Your task to perform on an android device: make emails show in primary in the gmail app Image 0: 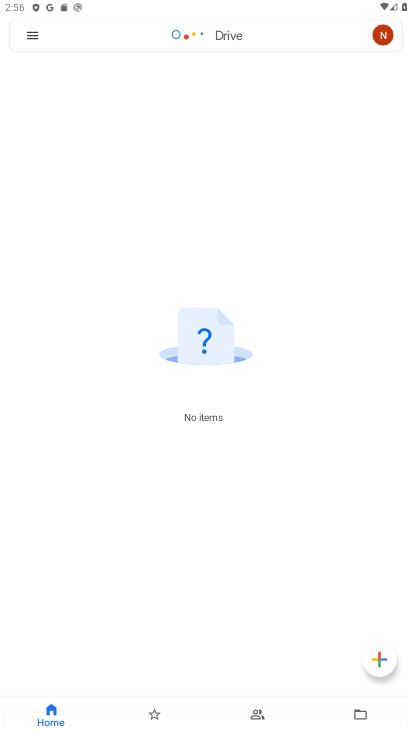
Step 0: press home button
Your task to perform on an android device: make emails show in primary in the gmail app Image 1: 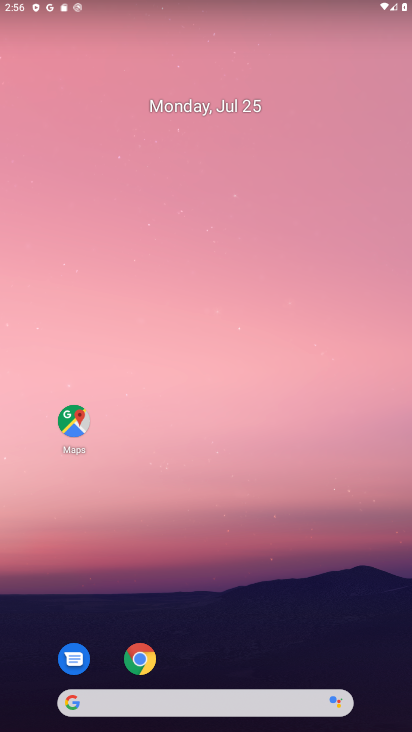
Step 1: drag from (235, 687) to (203, 23)
Your task to perform on an android device: make emails show in primary in the gmail app Image 2: 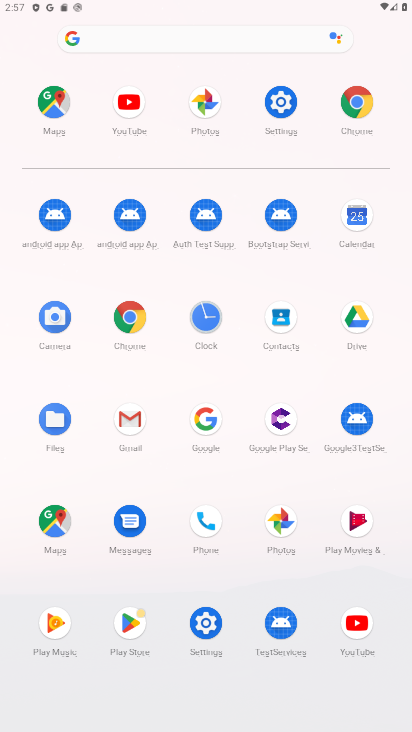
Step 2: click (130, 431)
Your task to perform on an android device: make emails show in primary in the gmail app Image 3: 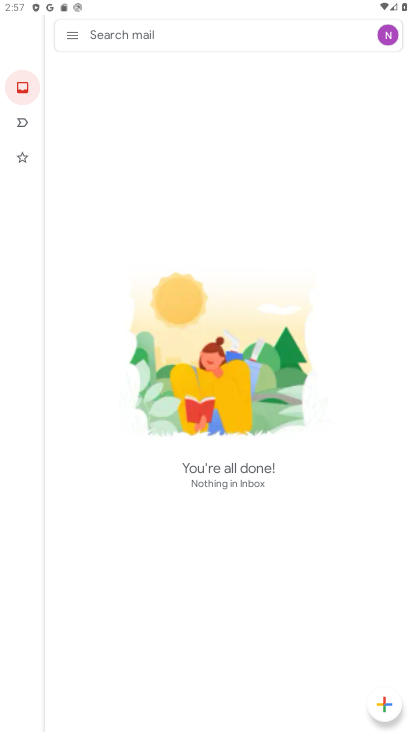
Step 3: click (73, 27)
Your task to perform on an android device: make emails show in primary in the gmail app Image 4: 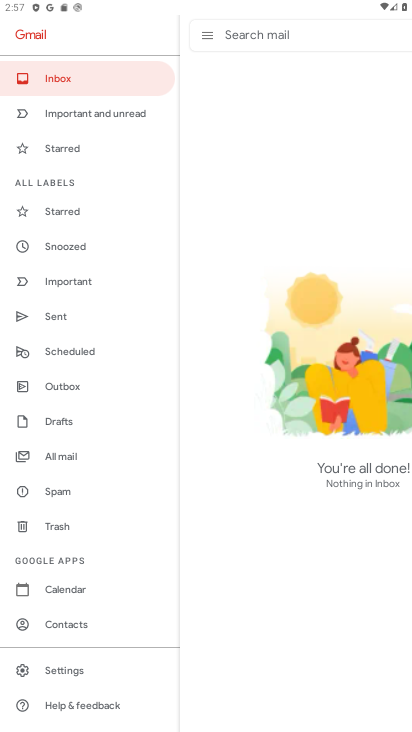
Step 4: click (73, 669)
Your task to perform on an android device: make emails show in primary in the gmail app Image 5: 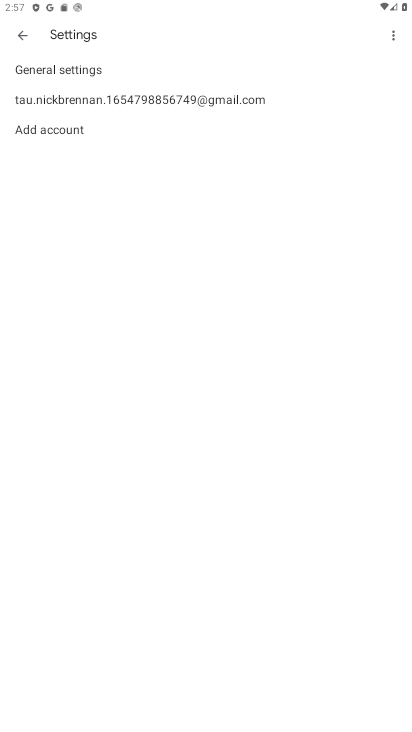
Step 5: click (30, 91)
Your task to perform on an android device: make emails show in primary in the gmail app Image 6: 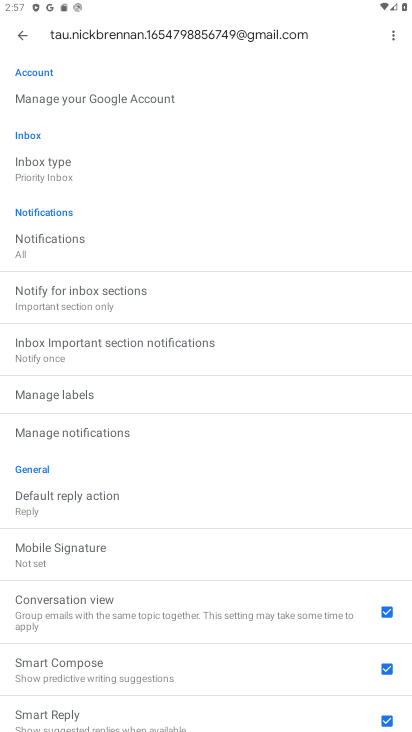
Step 6: click (54, 171)
Your task to perform on an android device: make emails show in primary in the gmail app Image 7: 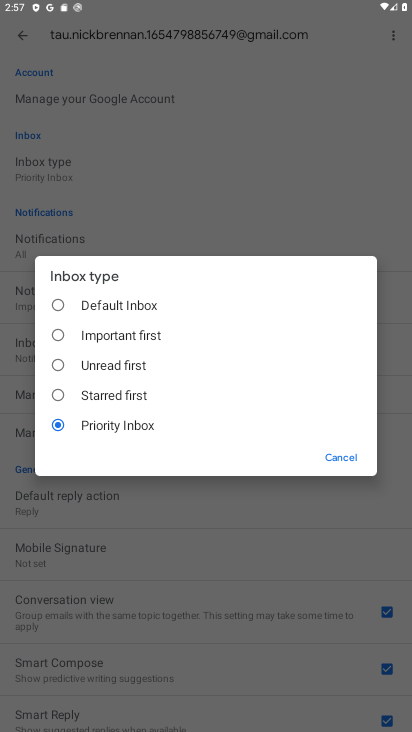
Step 7: click (82, 316)
Your task to perform on an android device: make emails show in primary in the gmail app Image 8: 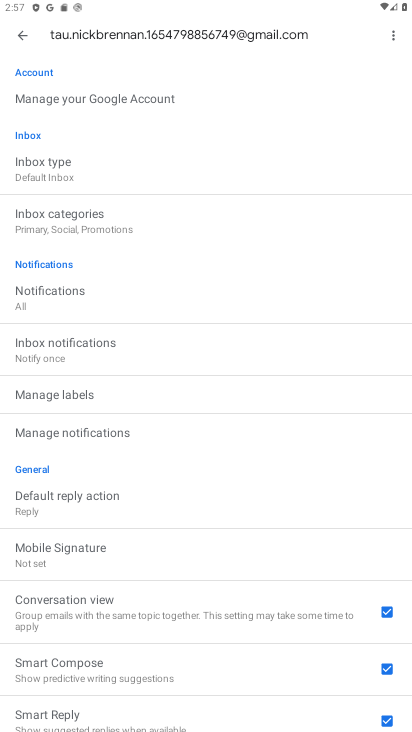
Step 8: click (34, 30)
Your task to perform on an android device: make emails show in primary in the gmail app Image 9: 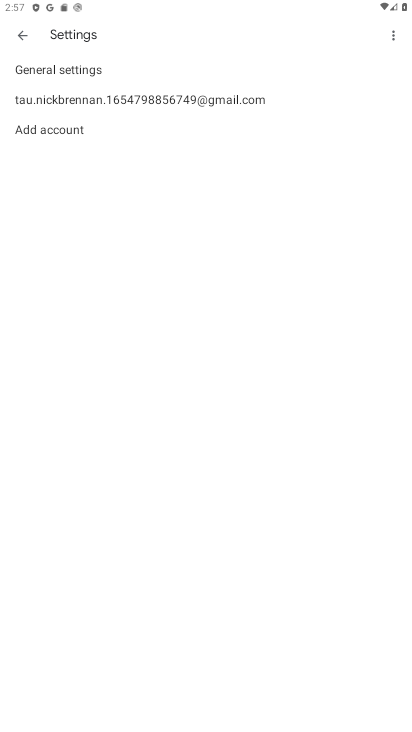
Step 9: click (14, 26)
Your task to perform on an android device: make emails show in primary in the gmail app Image 10: 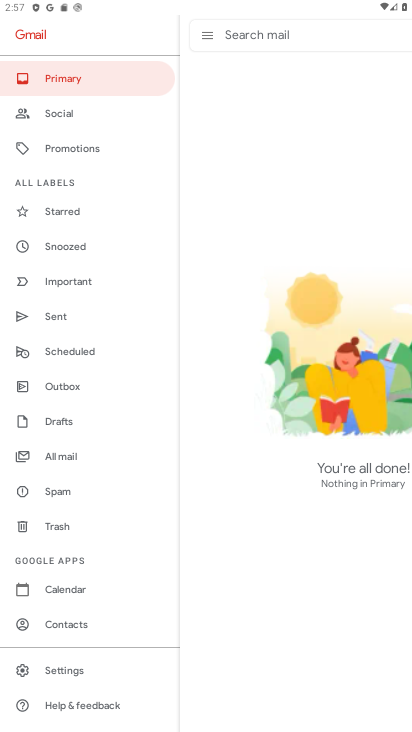
Step 10: click (65, 85)
Your task to perform on an android device: make emails show in primary in the gmail app Image 11: 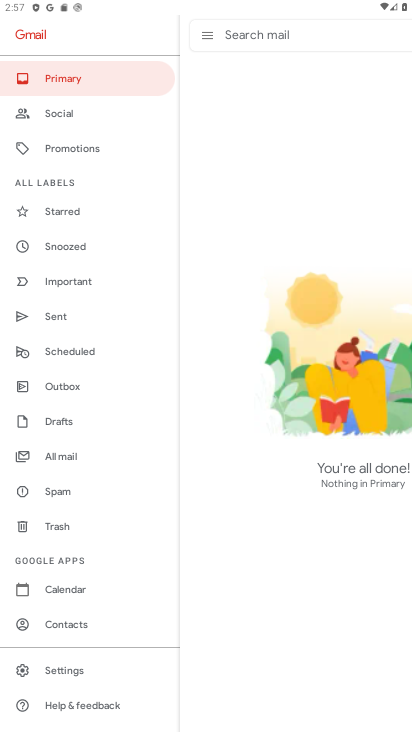
Step 11: task complete